Your task to perform on an android device: Clear the shopping cart on newegg.com. Add logitech g910 to the cart on newegg.com Image 0: 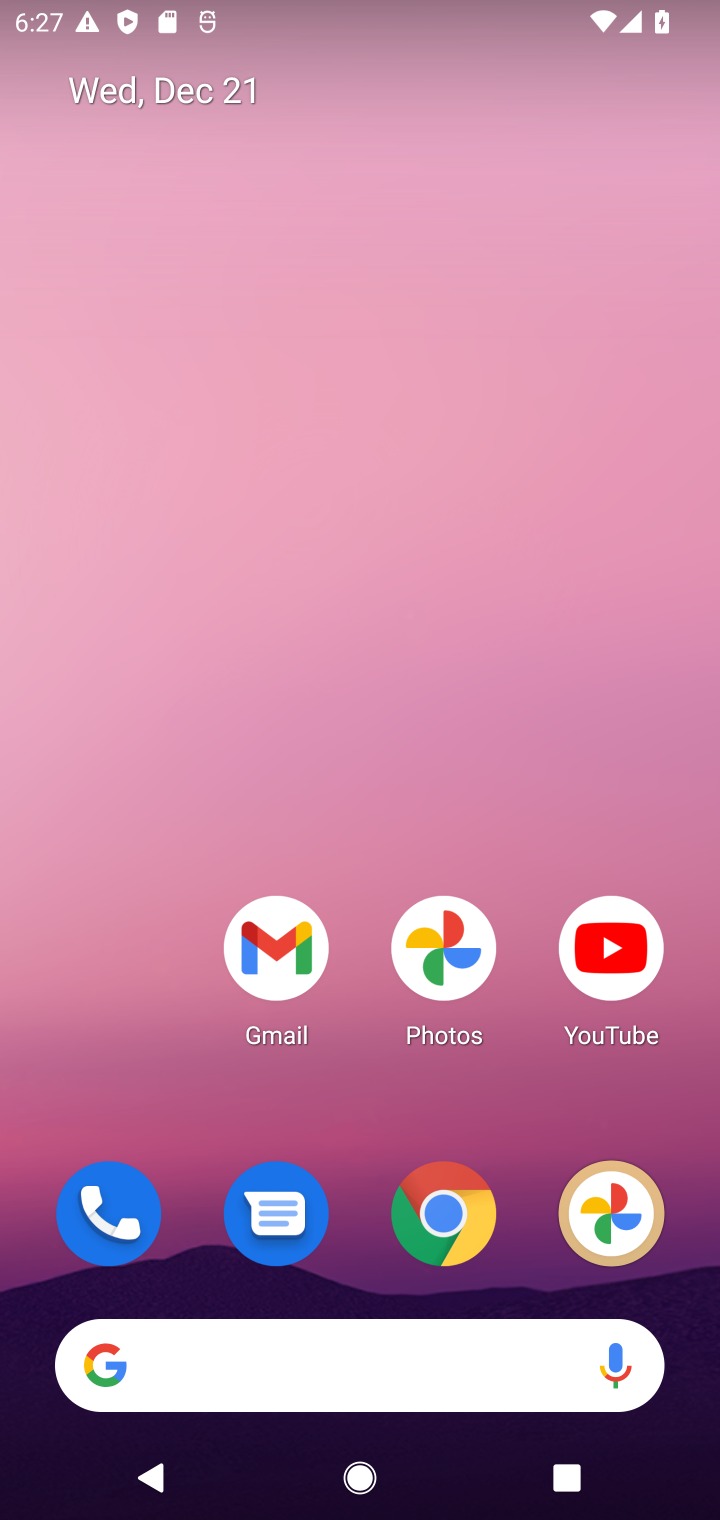
Step 0: click (465, 1201)
Your task to perform on an android device: Clear the shopping cart on newegg.com. Add logitech g910 to the cart on newegg.com Image 1: 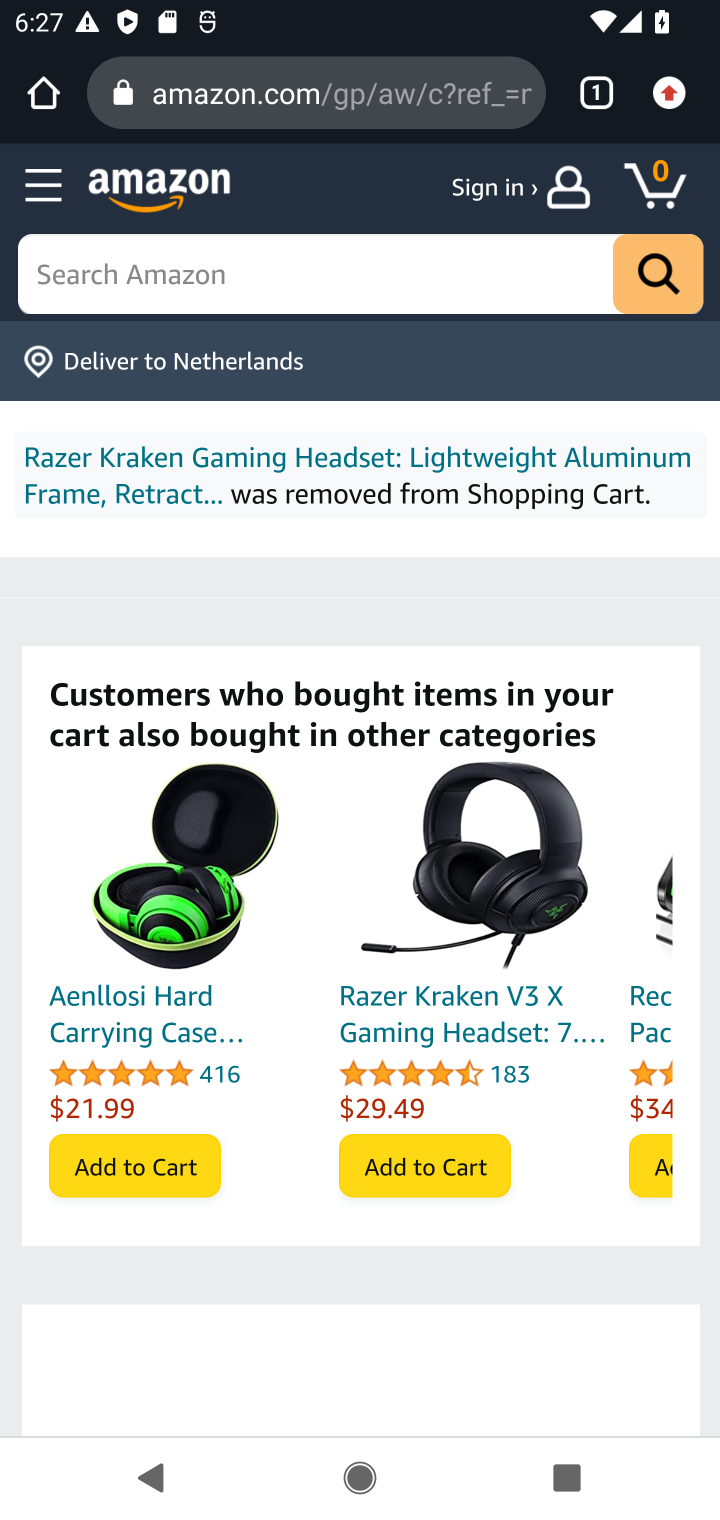
Step 1: click (334, 102)
Your task to perform on an android device: Clear the shopping cart on newegg.com. Add logitech g910 to the cart on newegg.com Image 2: 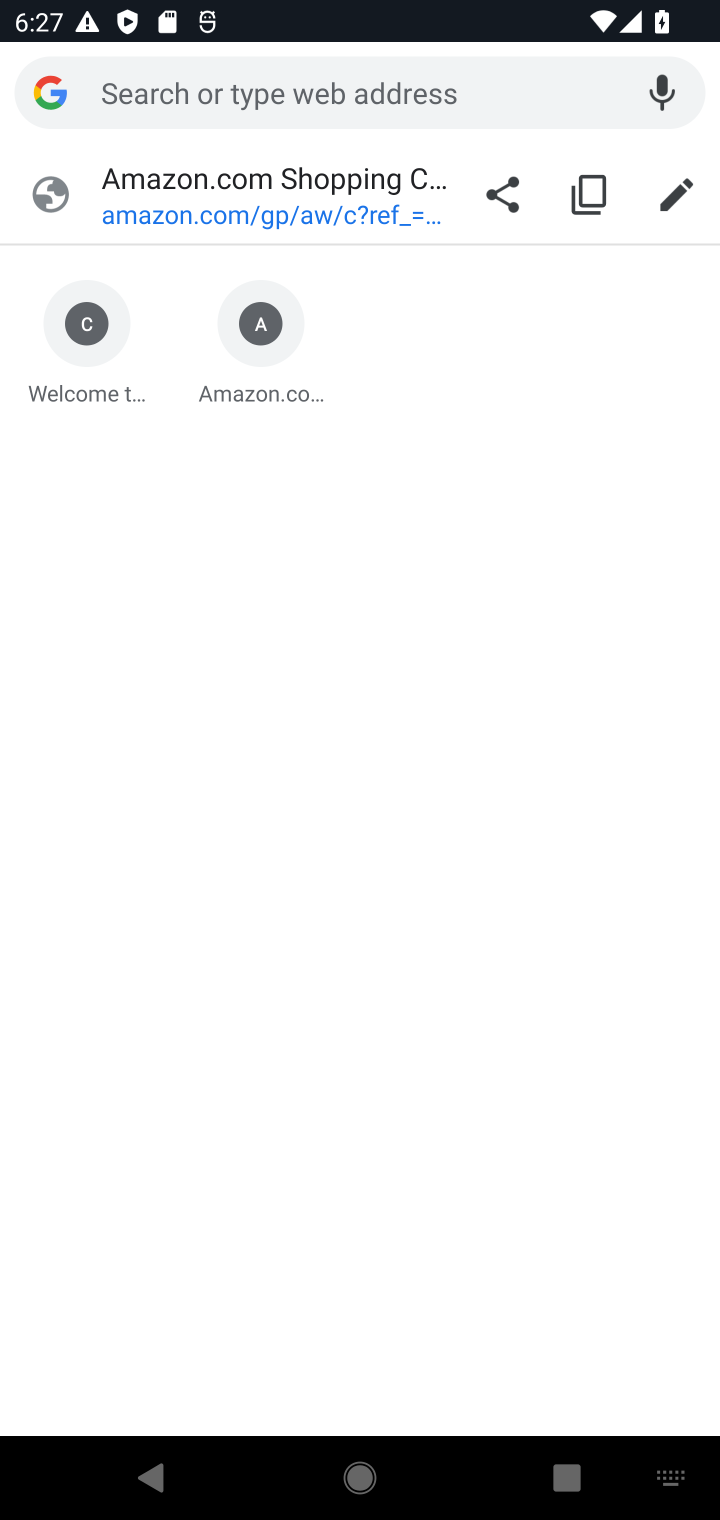
Step 2: type "newegg.com"
Your task to perform on an android device: Clear the shopping cart on newegg.com. Add logitech g910 to the cart on newegg.com Image 3: 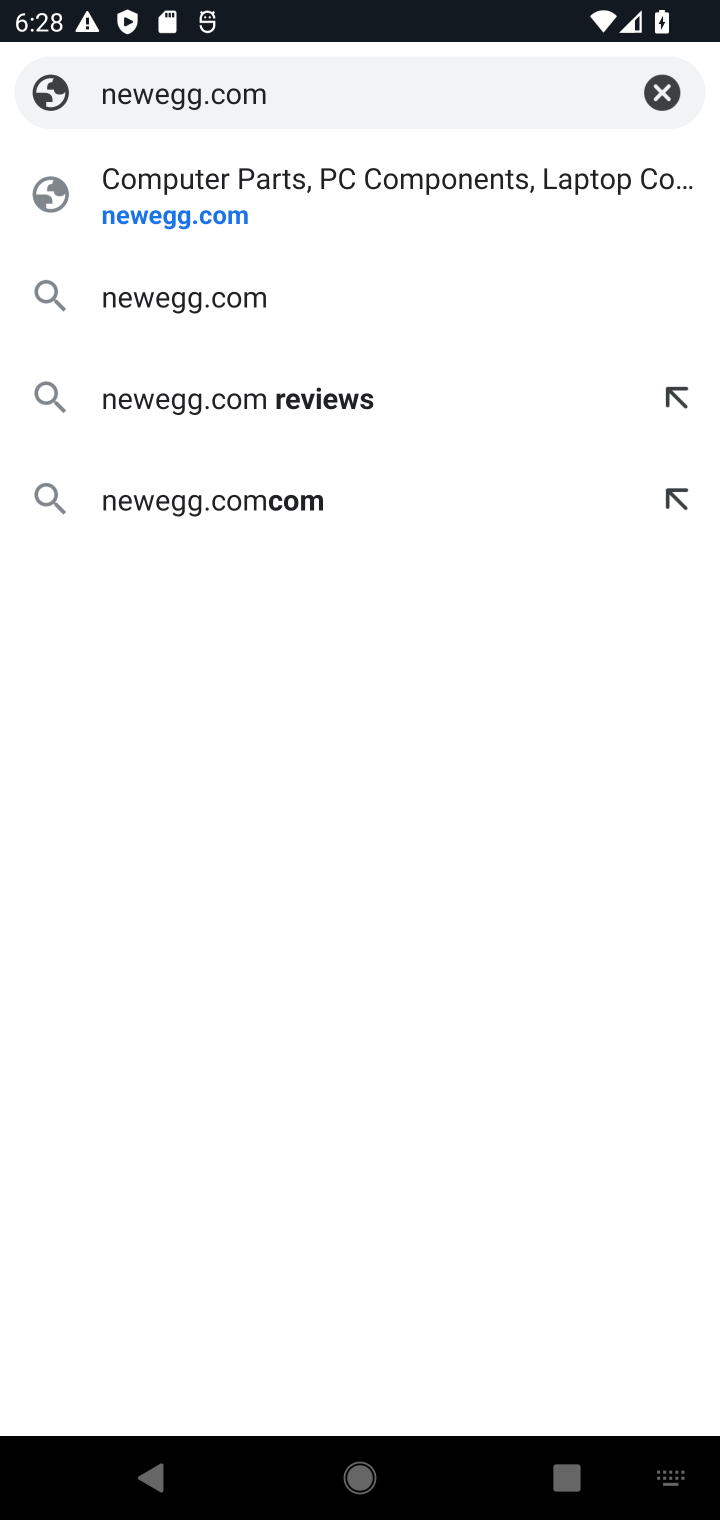
Step 3: click (262, 207)
Your task to perform on an android device: Clear the shopping cart on newegg.com. Add logitech g910 to the cart on newegg.com Image 4: 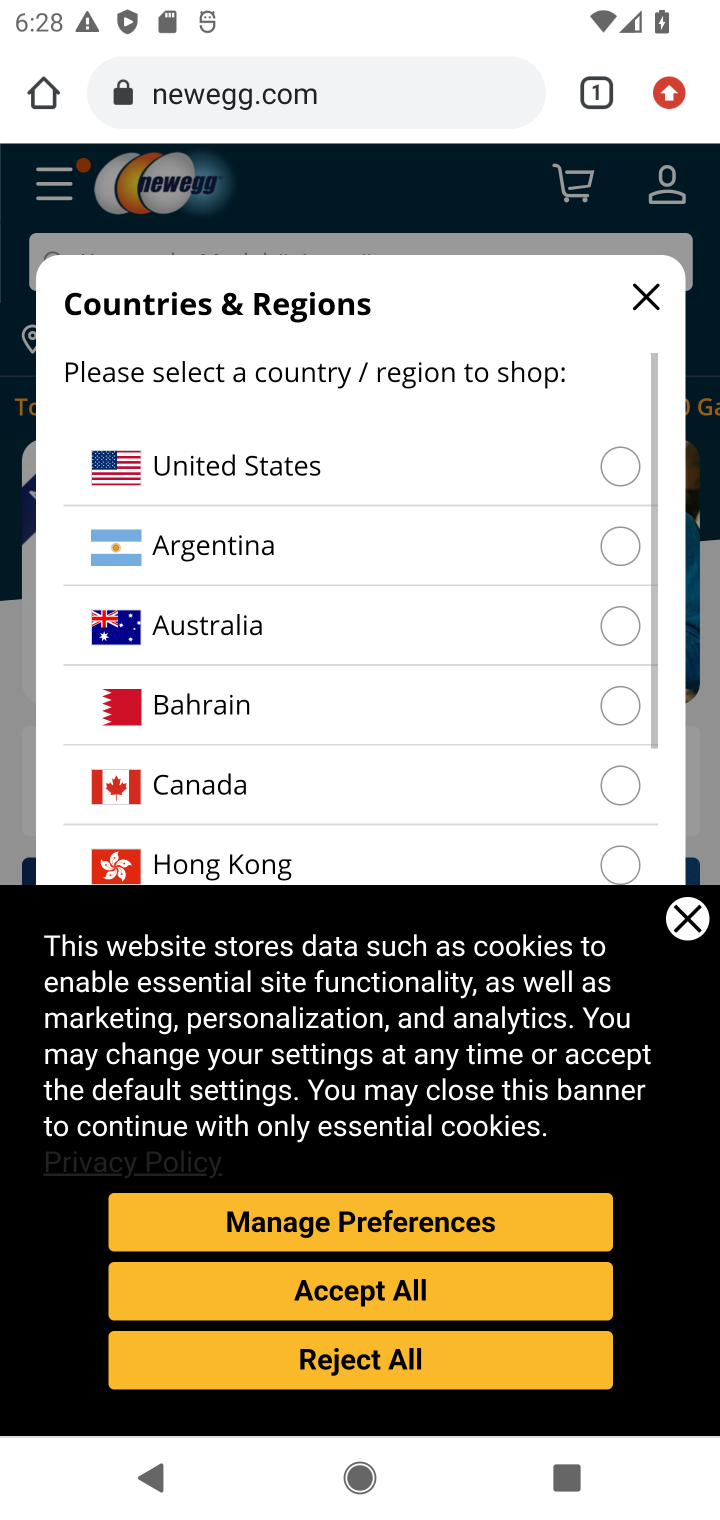
Step 4: click (262, 207)
Your task to perform on an android device: Clear the shopping cart on newegg.com. Add logitech g910 to the cart on newegg.com Image 5: 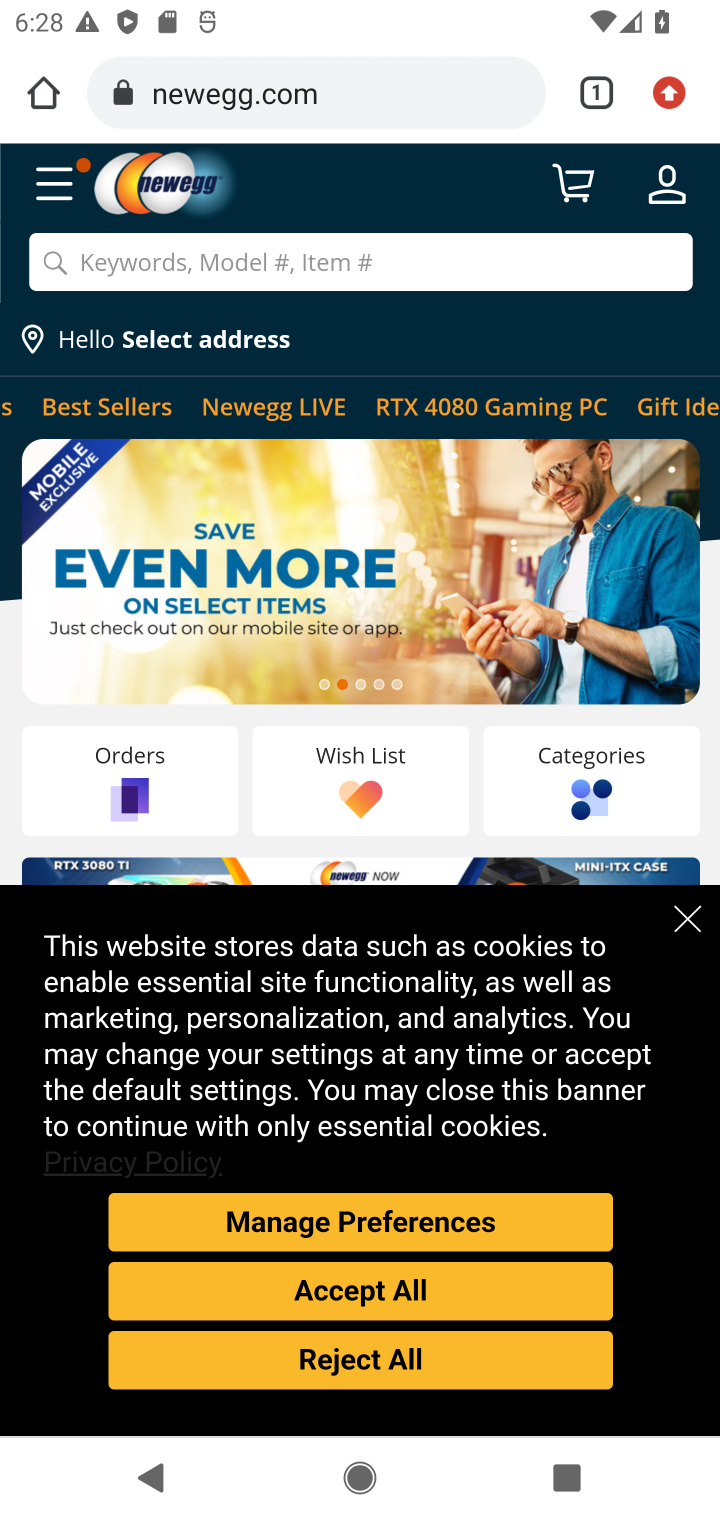
Step 5: click (414, 1300)
Your task to perform on an android device: Clear the shopping cart on newegg.com. Add logitech g910 to the cart on newegg.com Image 6: 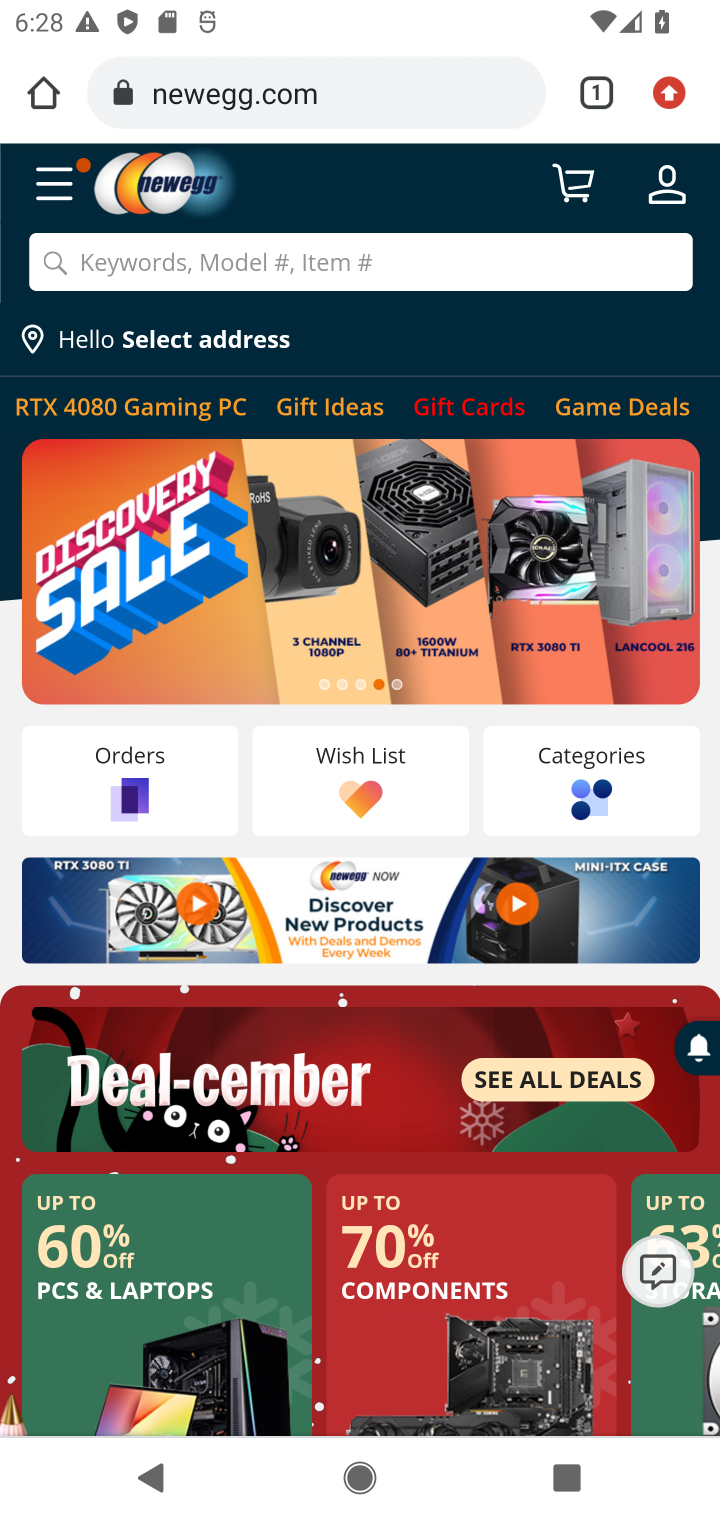
Step 6: click (294, 275)
Your task to perform on an android device: Clear the shopping cart on newegg.com. Add logitech g910 to the cart on newegg.com Image 7: 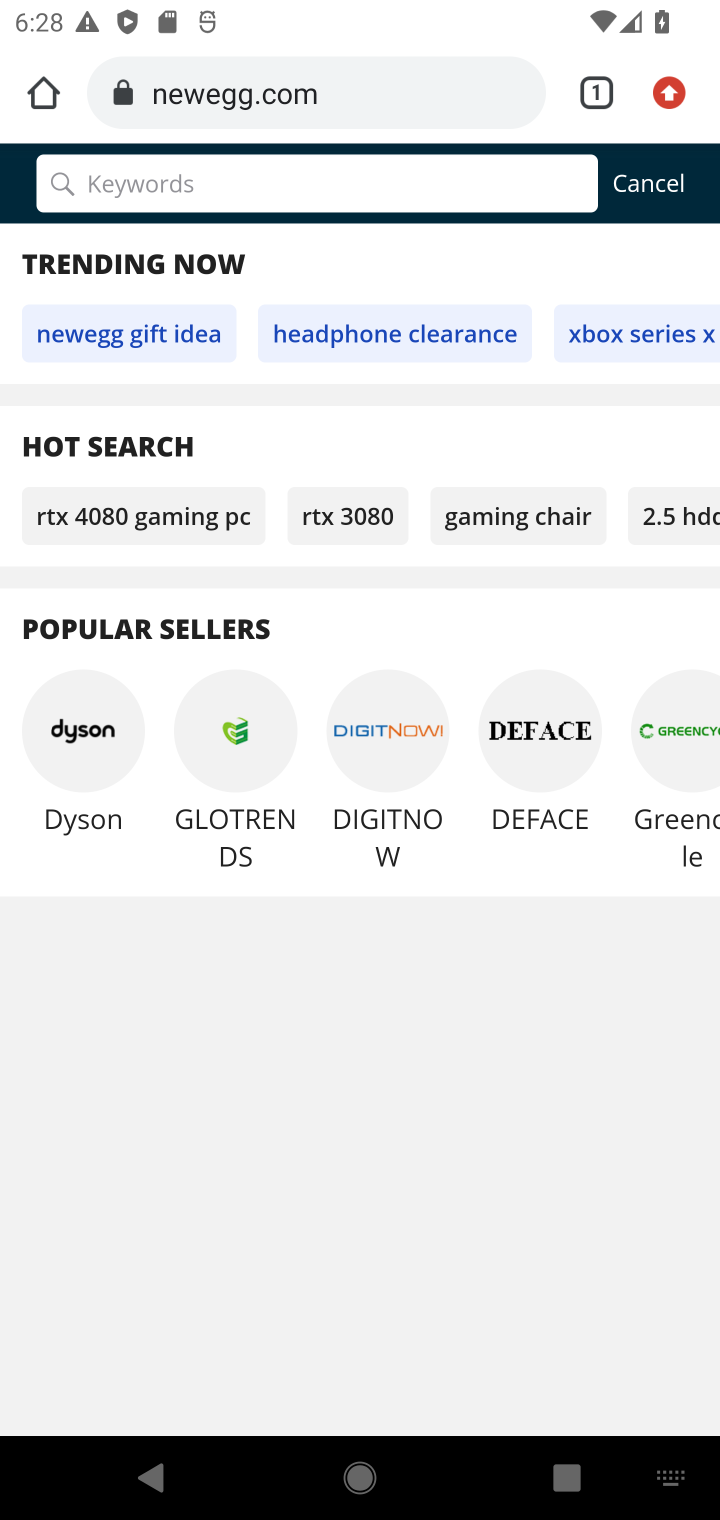
Step 7: type "logitech g910"
Your task to perform on an android device: Clear the shopping cart on newegg.com. Add logitech g910 to the cart on newegg.com Image 8: 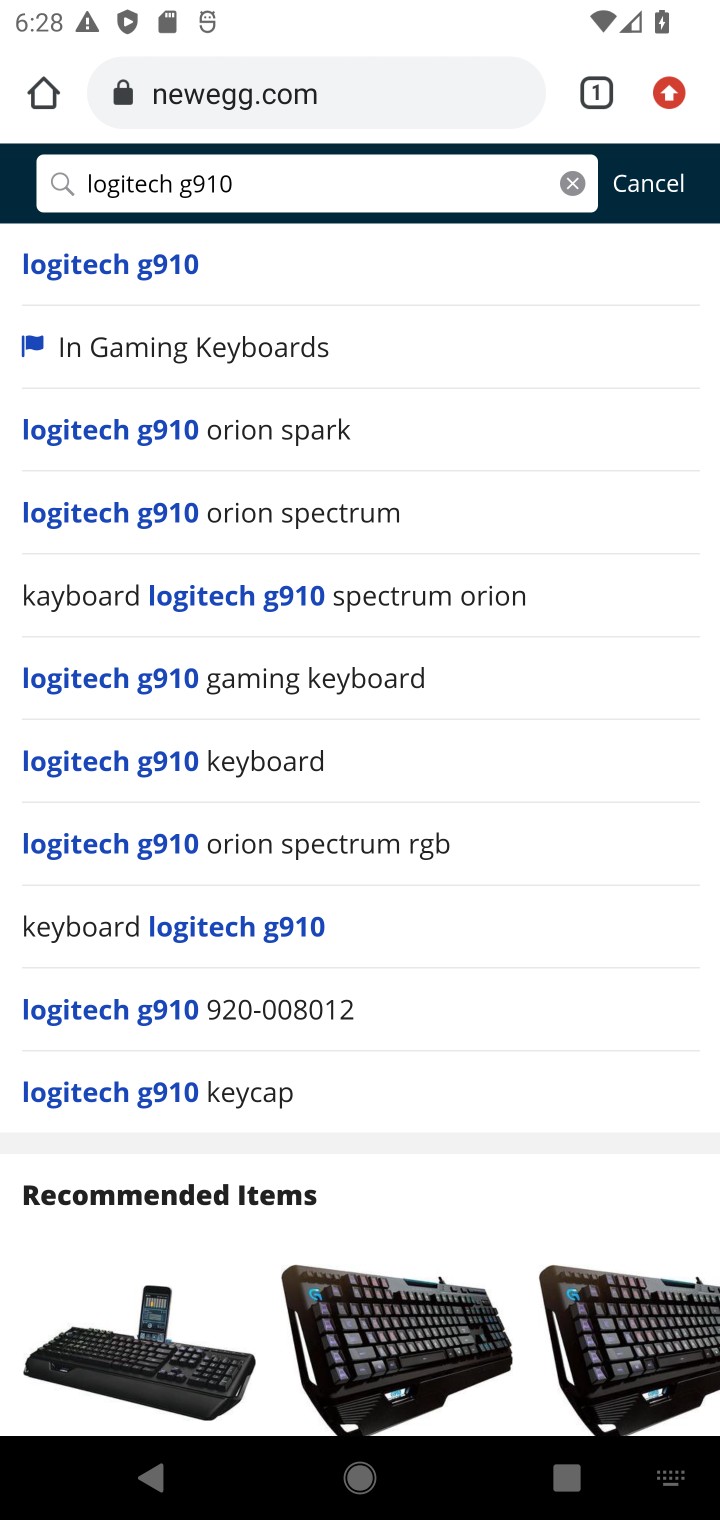
Step 8: click (240, 238)
Your task to perform on an android device: Clear the shopping cart on newegg.com. Add logitech g910 to the cart on newegg.com Image 9: 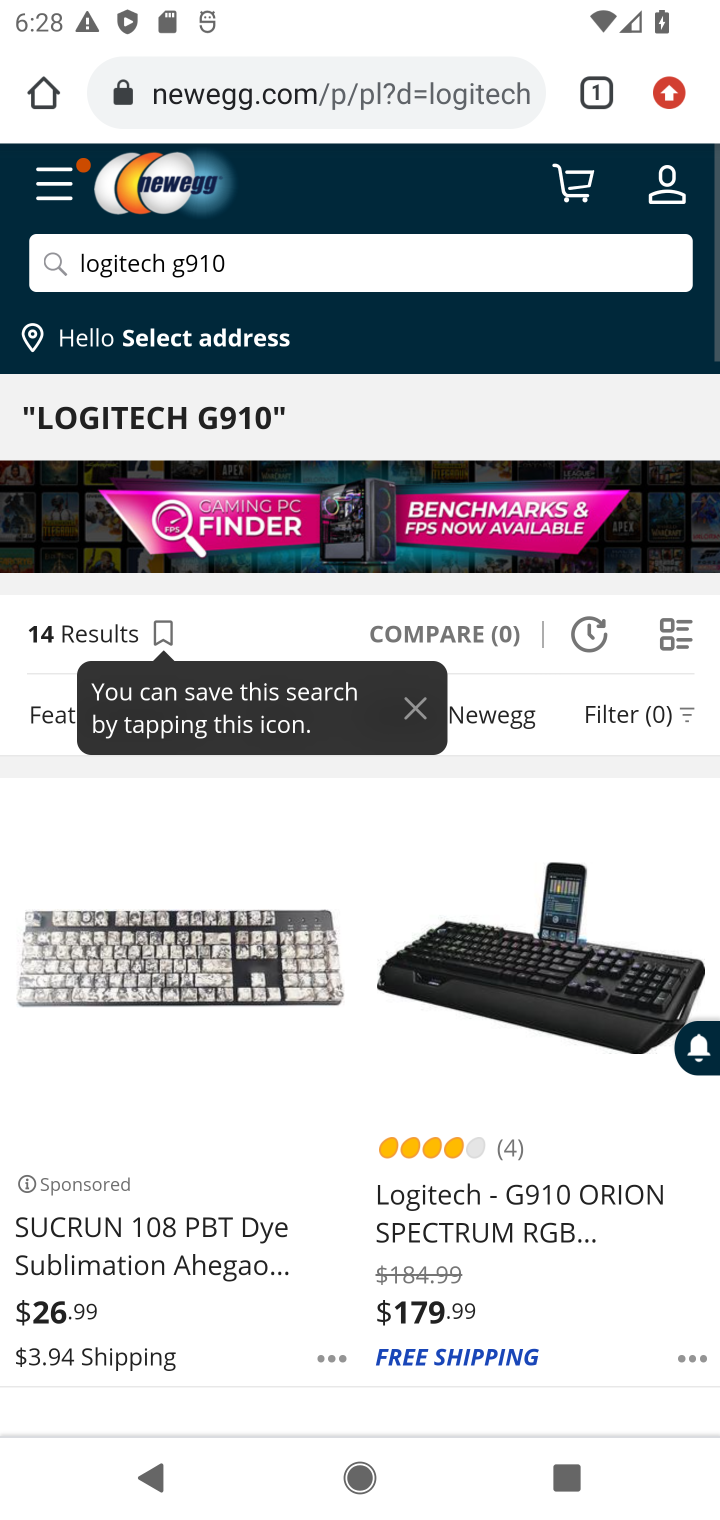
Step 9: click (173, 1082)
Your task to perform on an android device: Clear the shopping cart on newegg.com. Add logitech g910 to the cart on newegg.com Image 10: 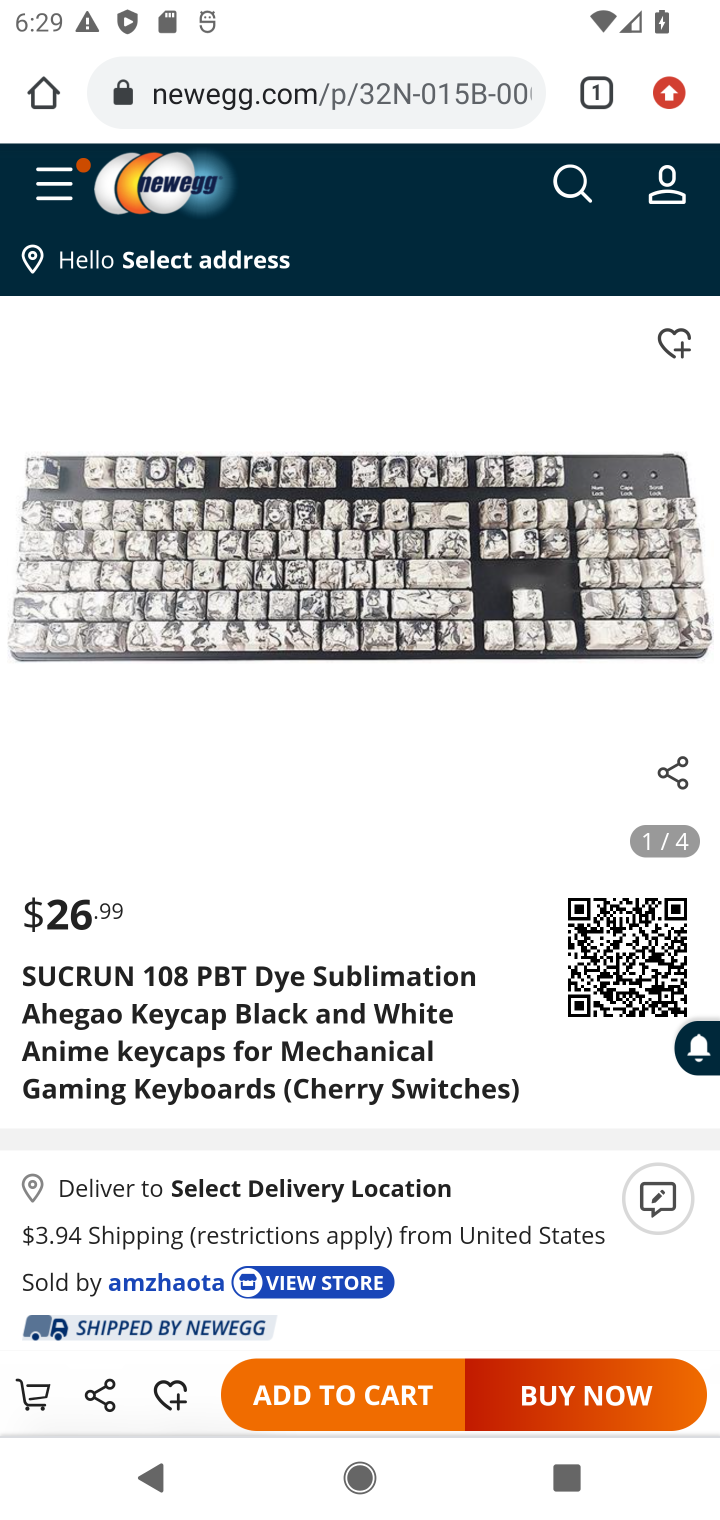
Step 10: click (389, 1405)
Your task to perform on an android device: Clear the shopping cart on newegg.com. Add logitech g910 to the cart on newegg.com Image 11: 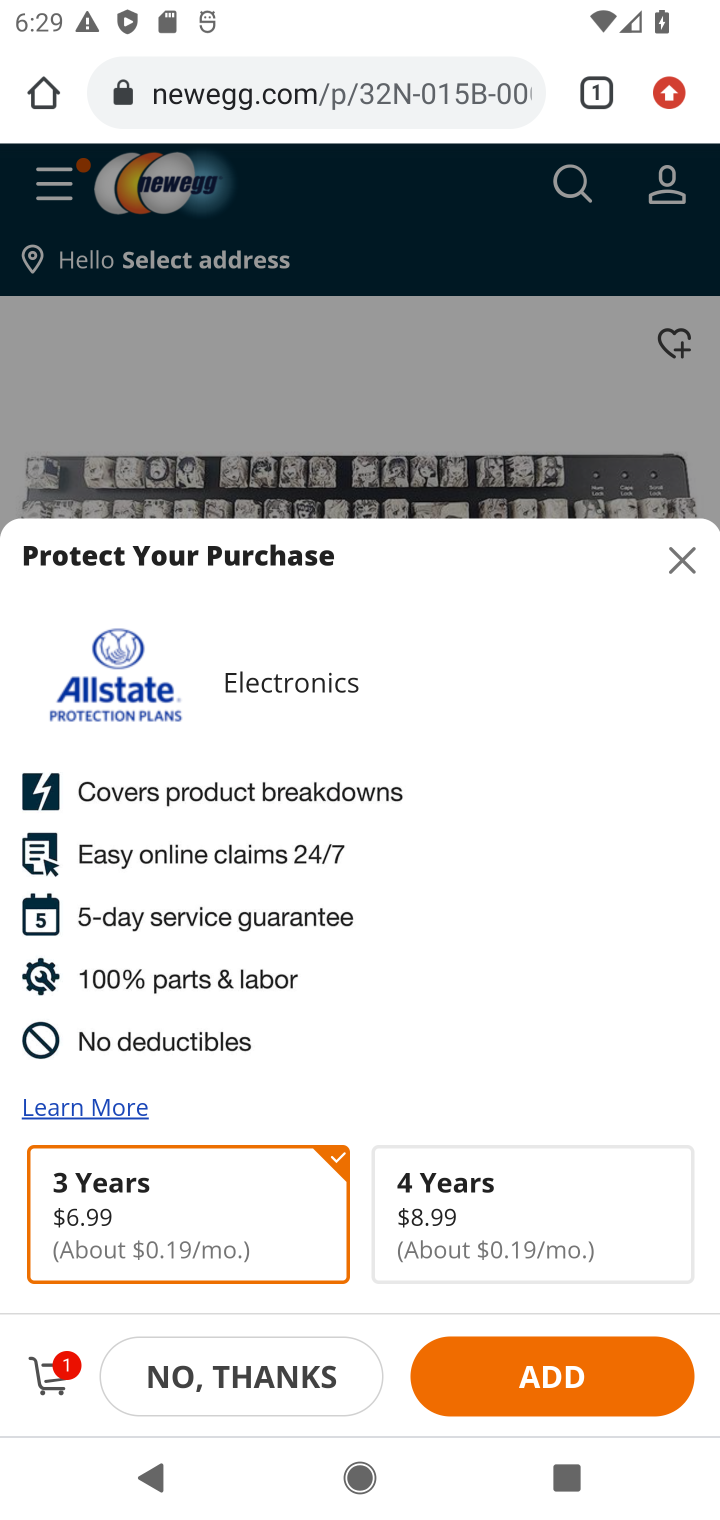
Step 11: task complete